Your task to perform on an android device: Open calendar and show me the third week of next month Image 0: 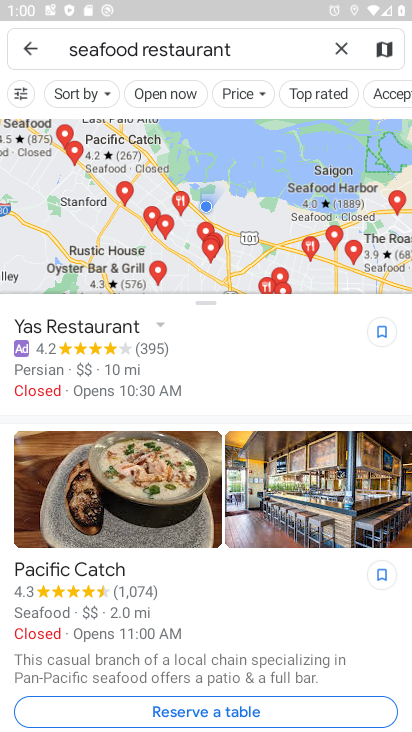
Step 0: press home button
Your task to perform on an android device: Open calendar and show me the third week of next month Image 1: 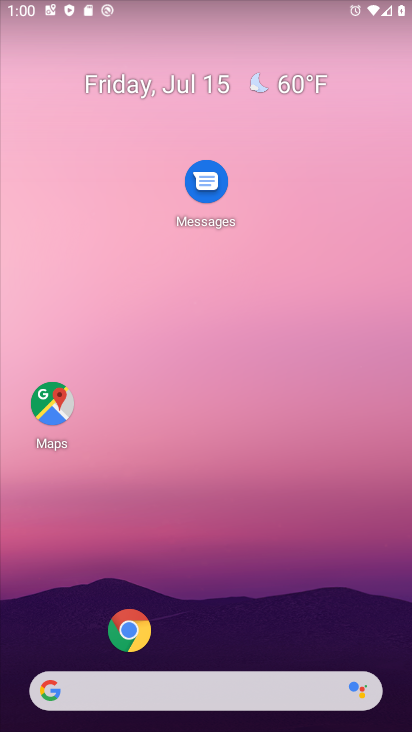
Step 1: drag from (17, 675) to (144, 123)
Your task to perform on an android device: Open calendar and show me the third week of next month Image 2: 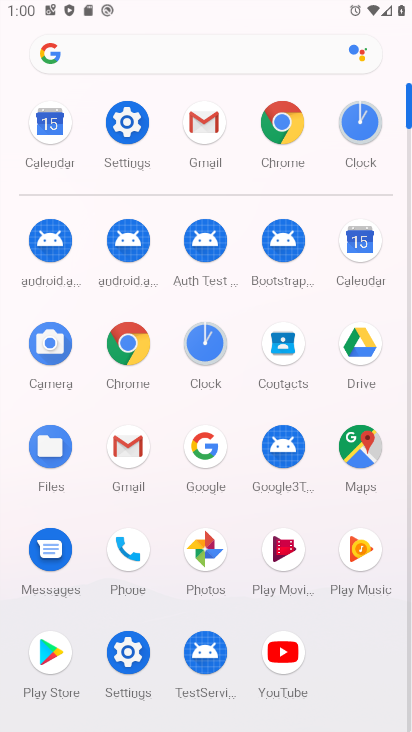
Step 2: click (381, 244)
Your task to perform on an android device: Open calendar and show me the third week of next month Image 3: 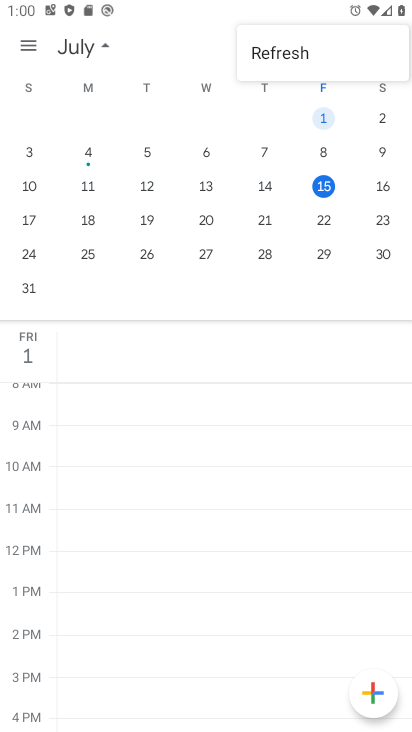
Step 3: drag from (383, 139) to (22, 233)
Your task to perform on an android device: Open calendar and show me the third week of next month Image 4: 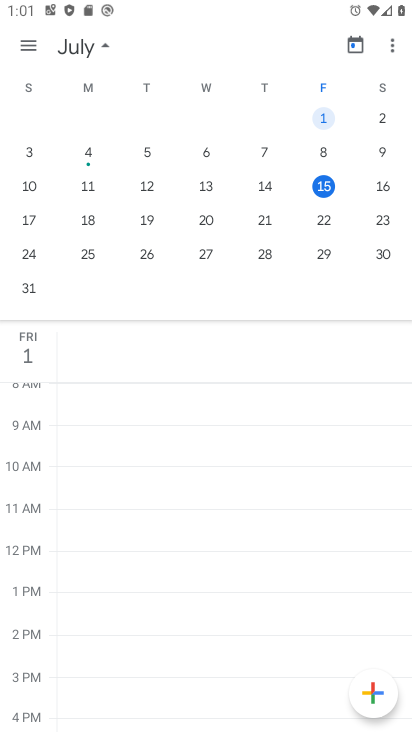
Step 4: drag from (394, 130) to (6, 376)
Your task to perform on an android device: Open calendar and show me the third week of next month Image 5: 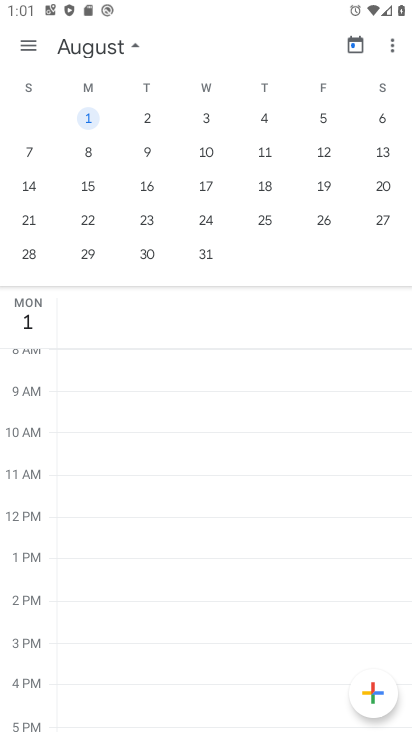
Step 5: click (86, 177)
Your task to perform on an android device: Open calendar and show me the third week of next month Image 6: 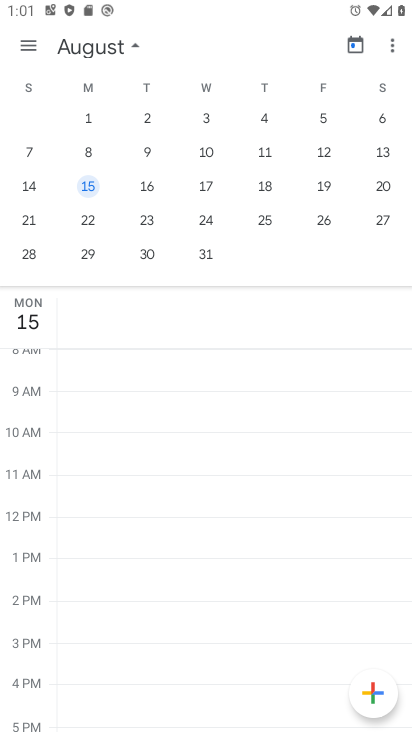
Step 6: task complete